Your task to perform on an android device: Open network settings Image 0: 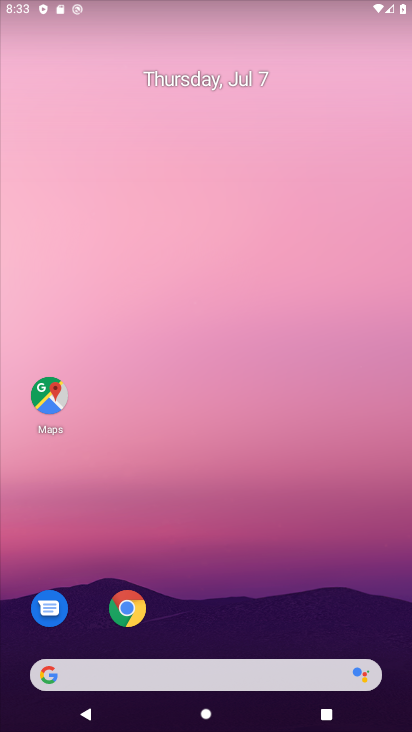
Step 0: drag from (264, 604) to (201, 308)
Your task to perform on an android device: Open network settings Image 1: 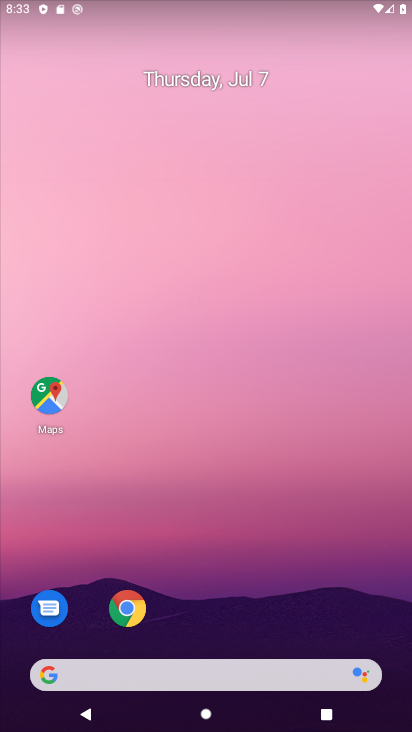
Step 1: drag from (259, 614) to (119, 111)
Your task to perform on an android device: Open network settings Image 2: 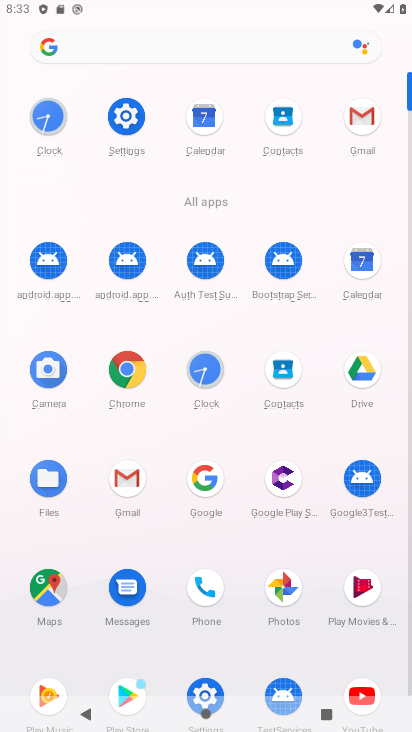
Step 2: click (119, 115)
Your task to perform on an android device: Open network settings Image 3: 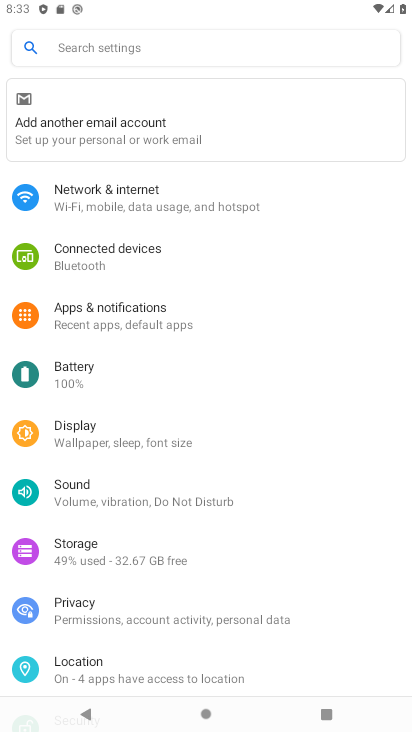
Step 3: click (133, 198)
Your task to perform on an android device: Open network settings Image 4: 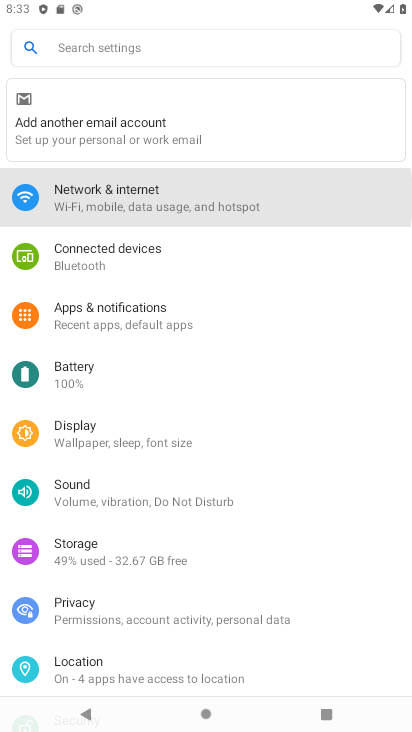
Step 4: click (133, 198)
Your task to perform on an android device: Open network settings Image 5: 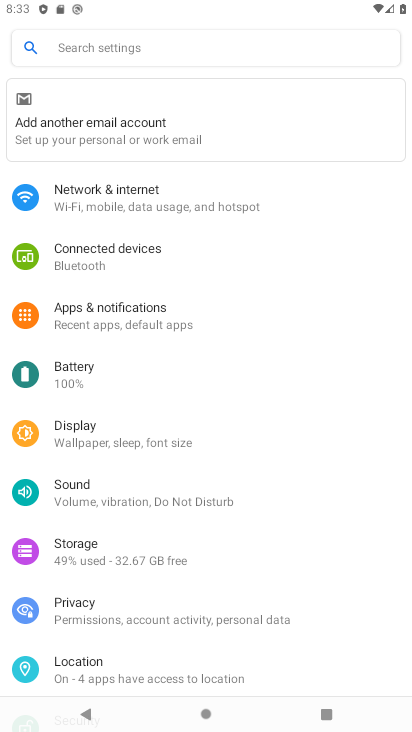
Step 5: click (133, 198)
Your task to perform on an android device: Open network settings Image 6: 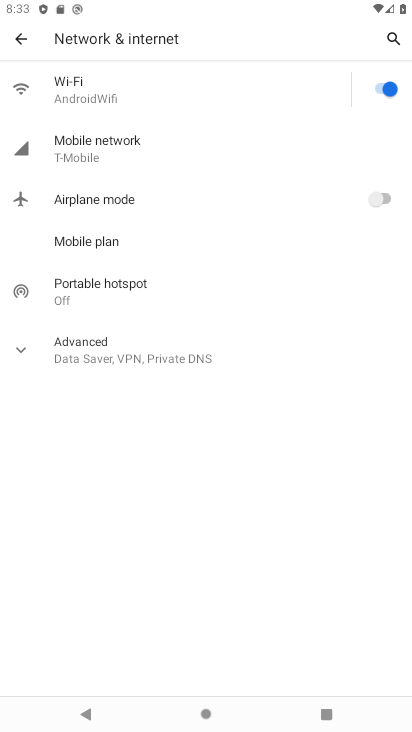
Step 6: task complete